Your task to perform on an android device: Open the Play Movies app and select the watchlist tab. Image 0: 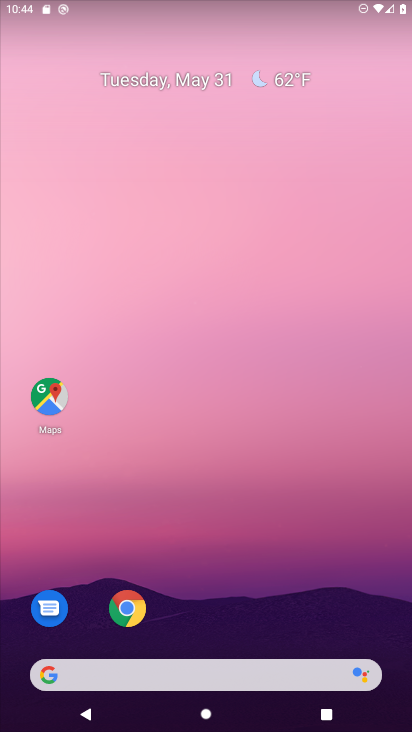
Step 0: drag from (302, 576) to (335, 125)
Your task to perform on an android device: Open the Play Movies app and select the watchlist tab. Image 1: 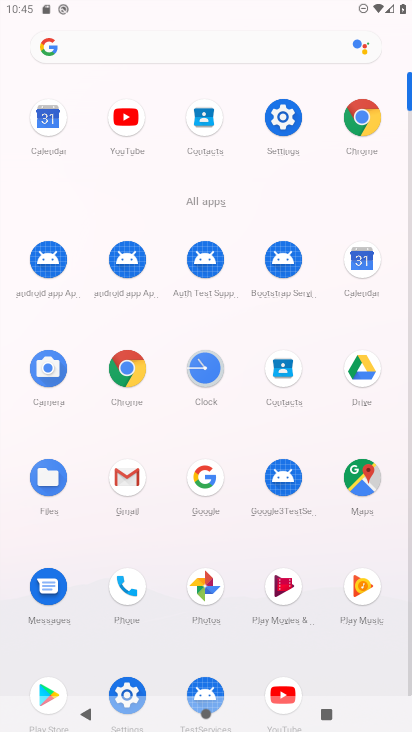
Step 1: click (268, 590)
Your task to perform on an android device: Open the Play Movies app and select the watchlist tab. Image 2: 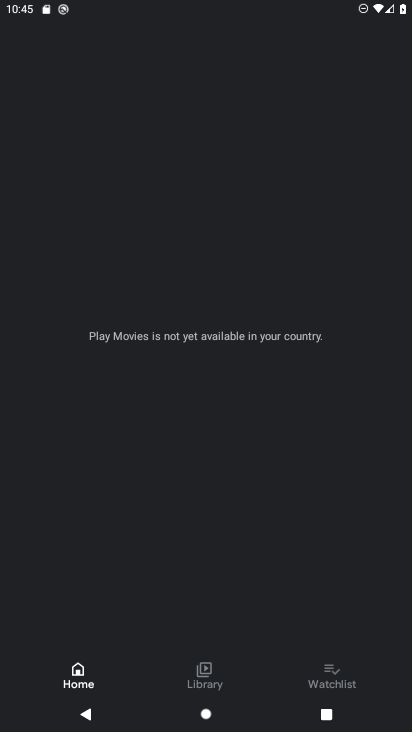
Step 2: click (343, 679)
Your task to perform on an android device: Open the Play Movies app and select the watchlist tab. Image 3: 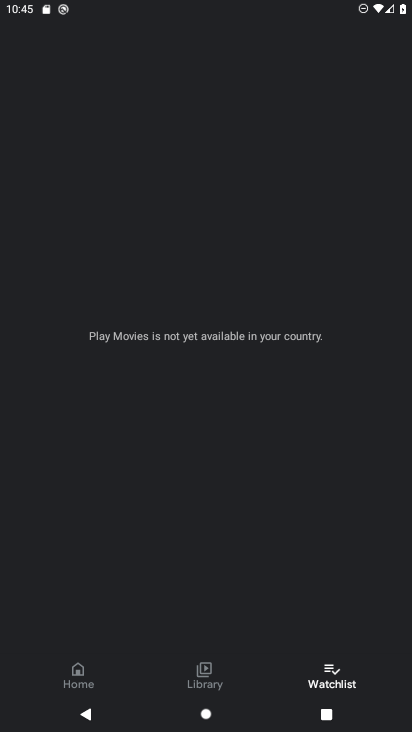
Step 3: task complete